Your task to perform on an android device: turn on improve location accuracy Image 0: 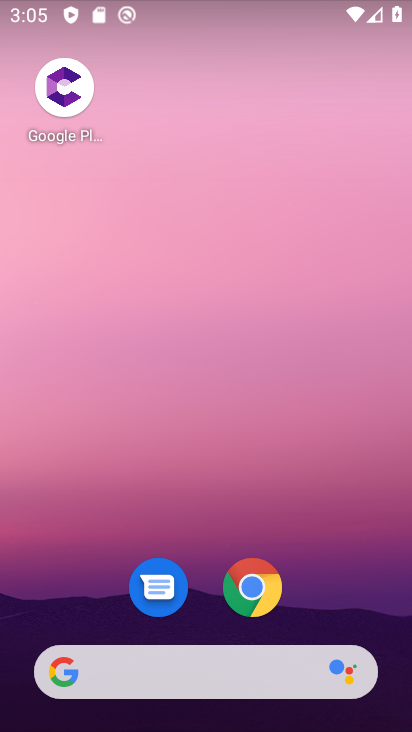
Step 0: drag from (164, 419) to (293, 57)
Your task to perform on an android device: turn on improve location accuracy Image 1: 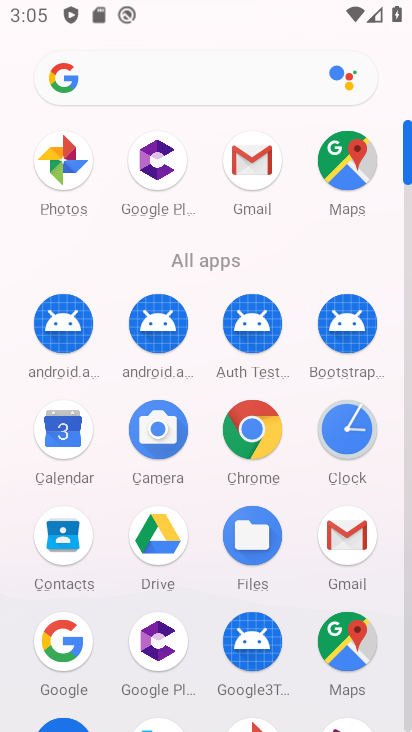
Step 1: drag from (168, 635) to (309, 246)
Your task to perform on an android device: turn on improve location accuracy Image 2: 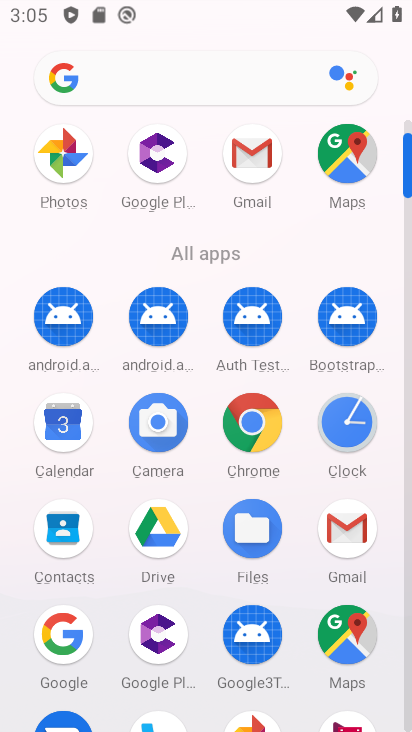
Step 2: drag from (194, 639) to (276, 328)
Your task to perform on an android device: turn on improve location accuracy Image 3: 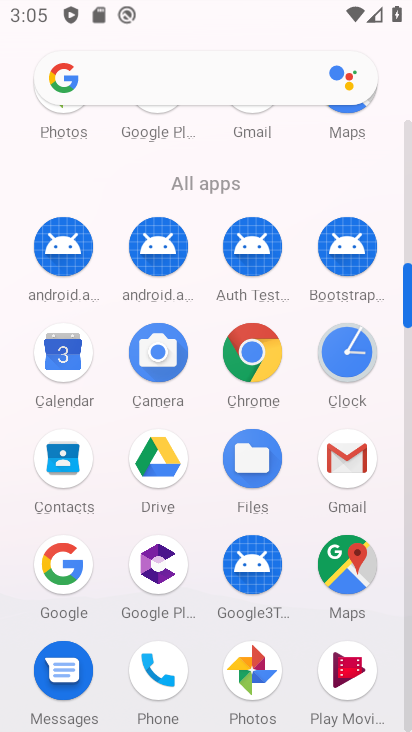
Step 3: drag from (187, 533) to (203, 455)
Your task to perform on an android device: turn on improve location accuracy Image 4: 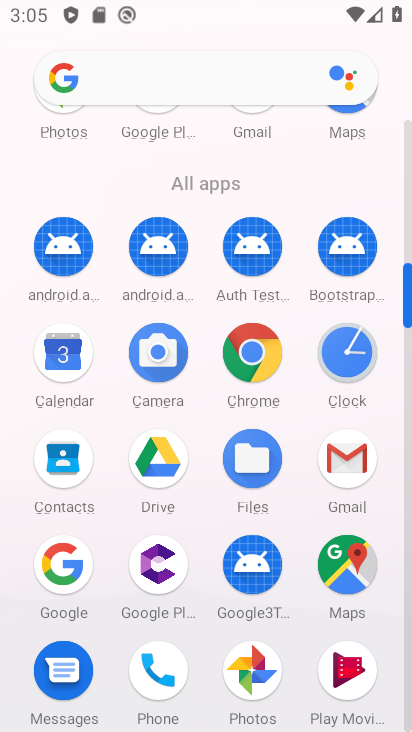
Step 4: drag from (136, 599) to (236, 176)
Your task to perform on an android device: turn on improve location accuracy Image 5: 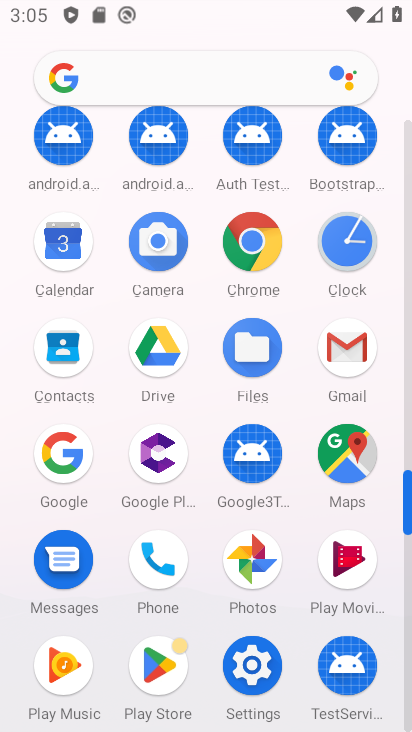
Step 5: click (276, 666)
Your task to perform on an android device: turn on improve location accuracy Image 6: 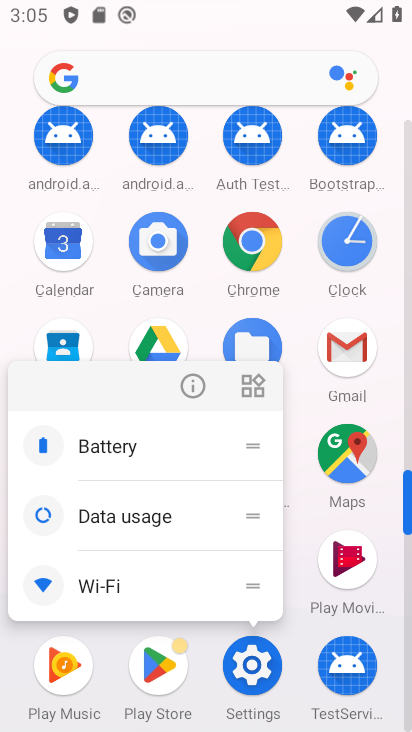
Step 6: click (269, 673)
Your task to perform on an android device: turn on improve location accuracy Image 7: 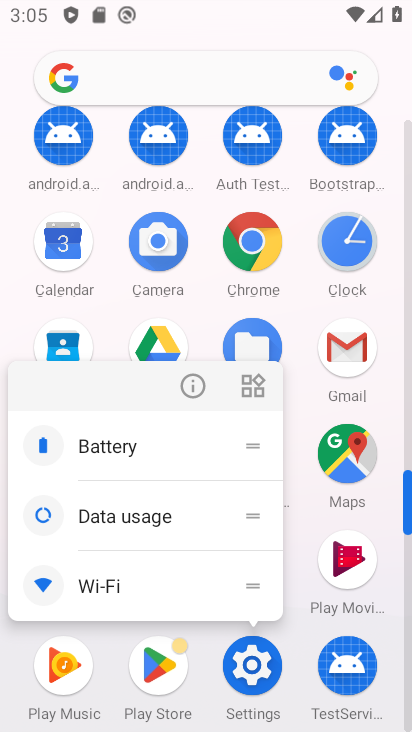
Step 7: click (250, 652)
Your task to perform on an android device: turn on improve location accuracy Image 8: 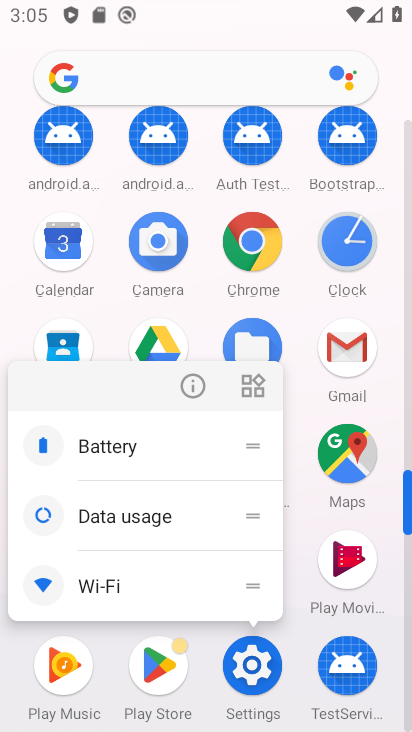
Step 8: click (244, 666)
Your task to perform on an android device: turn on improve location accuracy Image 9: 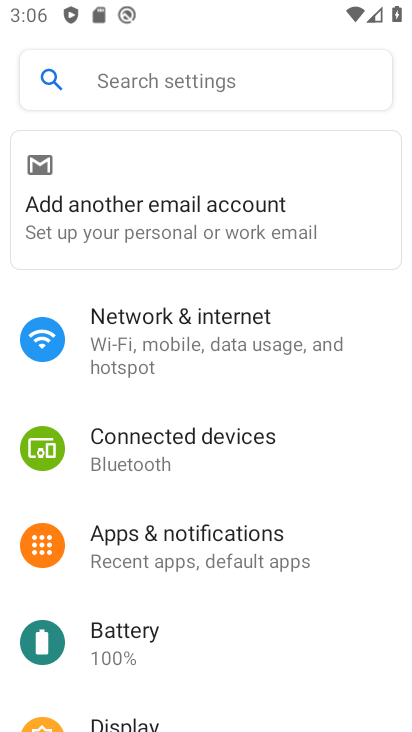
Step 9: drag from (277, 623) to (315, 299)
Your task to perform on an android device: turn on improve location accuracy Image 10: 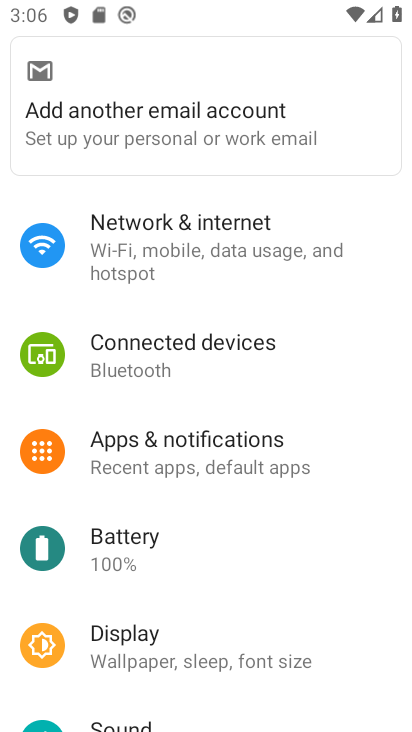
Step 10: drag from (207, 670) to (224, 326)
Your task to perform on an android device: turn on improve location accuracy Image 11: 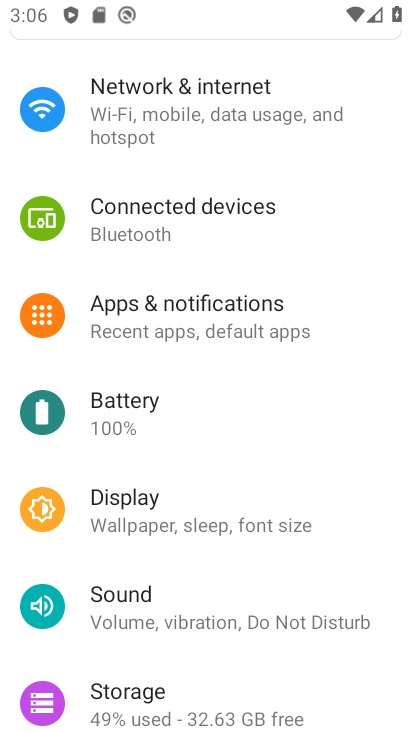
Step 11: drag from (191, 711) to (245, 393)
Your task to perform on an android device: turn on improve location accuracy Image 12: 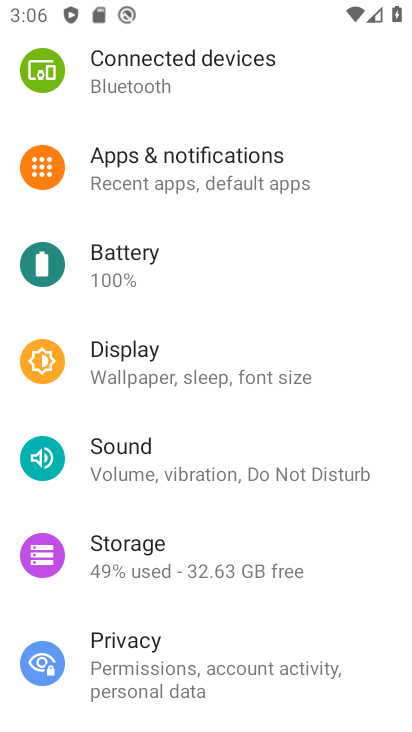
Step 12: drag from (176, 643) to (218, 387)
Your task to perform on an android device: turn on improve location accuracy Image 13: 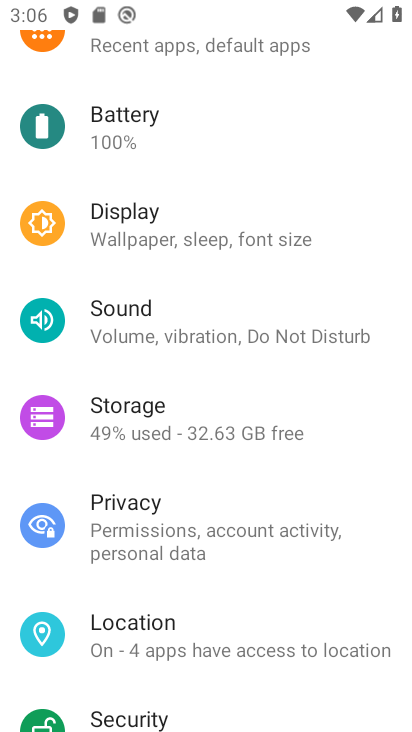
Step 13: click (147, 641)
Your task to perform on an android device: turn on improve location accuracy Image 14: 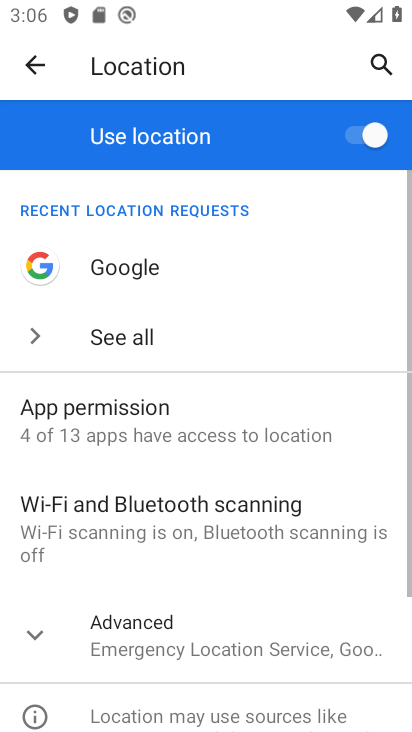
Step 14: drag from (161, 547) to (214, 288)
Your task to perform on an android device: turn on improve location accuracy Image 15: 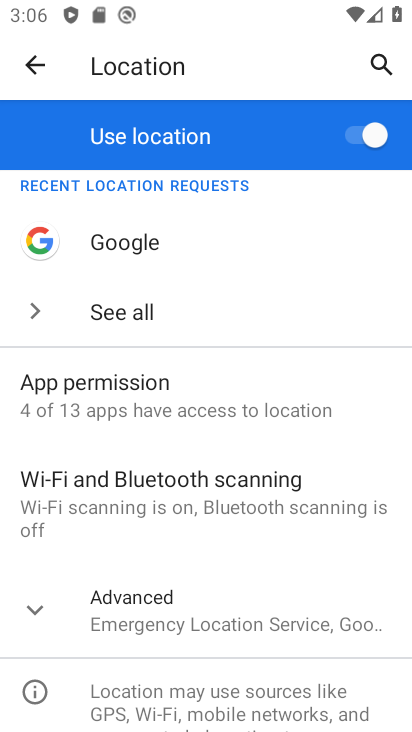
Step 15: click (135, 606)
Your task to perform on an android device: turn on improve location accuracy Image 16: 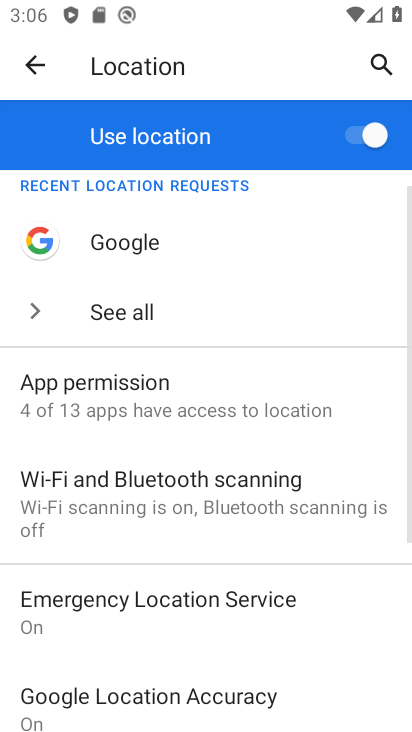
Step 16: task complete